Your task to perform on an android device: change notifications settings Image 0: 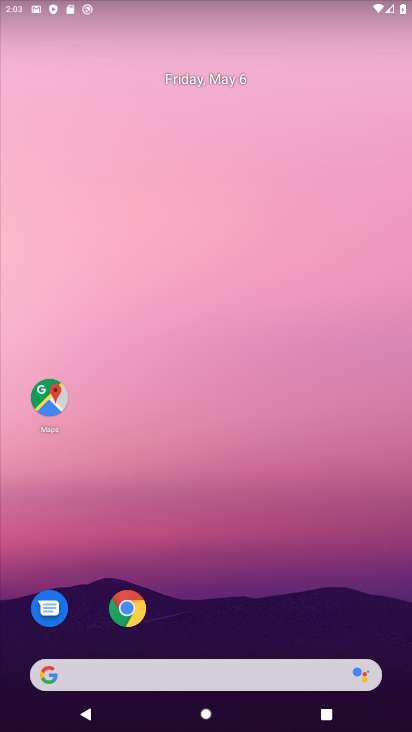
Step 0: drag from (205, 615) to (222, 32)
Your task to perform on an android device: change notifications settings Image 1: 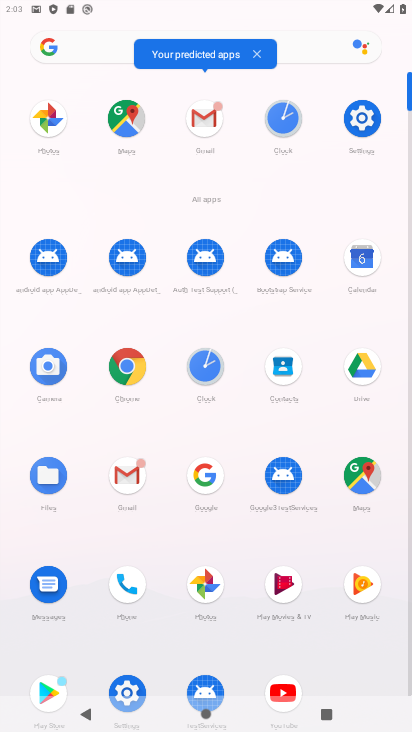
Step 1: drag from (155, 633) to (160, 405)
Your task to perform on an android device: change notifications settings Image 2: 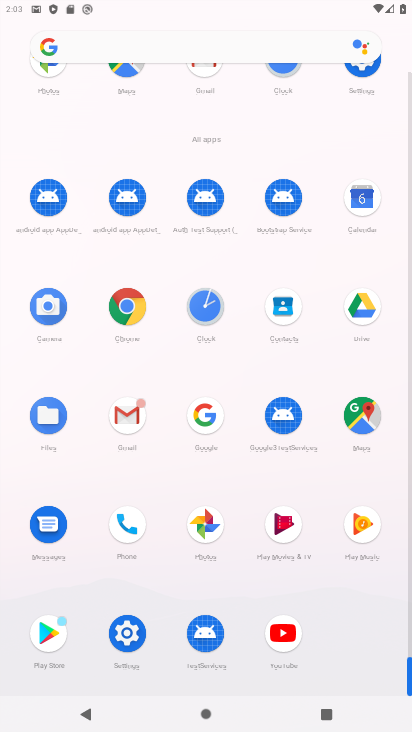
Step 2: click (134, 642)
Your task to perform on an android device: change notifications settings Image 3: 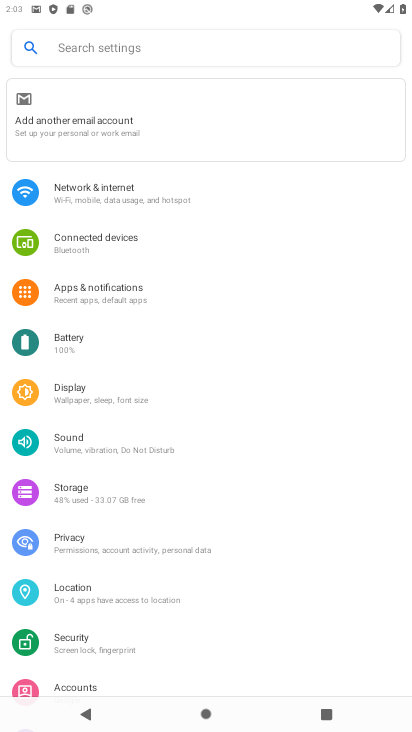
Step 3: click (130, 297)
Your task to perform on an android device: change notifications settings Image 4: 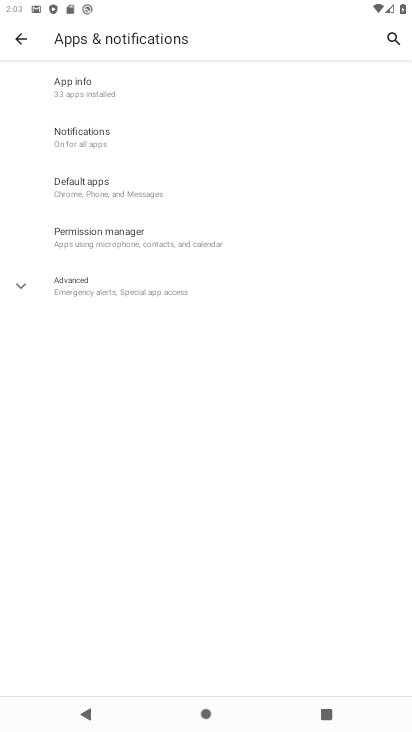
Step 4: click (92, 137)
Your task to perform on an android device: change notifications settings Image 5: 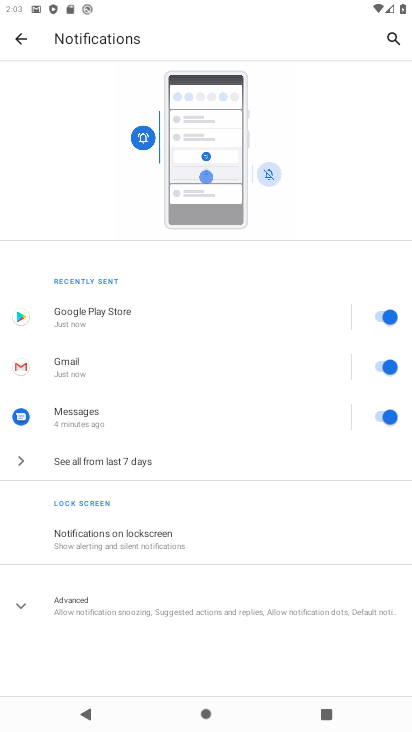
Step 5: click (386, 311)
Your task to perform on an android device: change notifications settings Image 6: 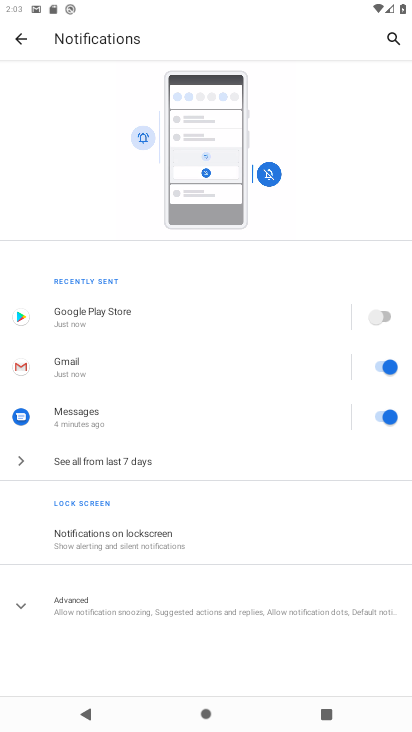
Step 6: click (381, 363)
Your task to perform on an android device: change notifications settings Image 7: 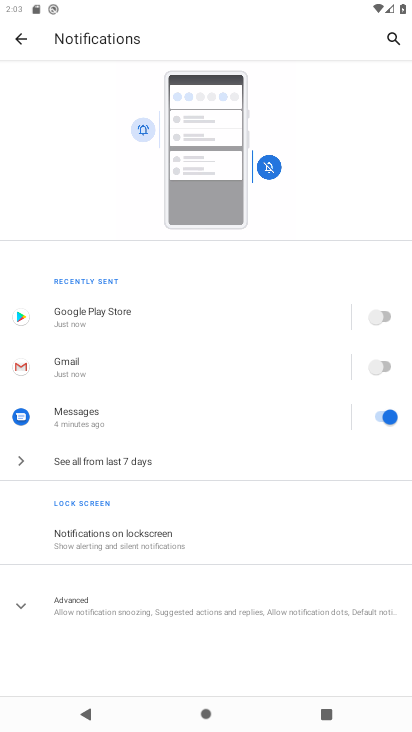
Step 7: click (376, 412)
Your task to perform on an android device: change notifications settings Image 8: 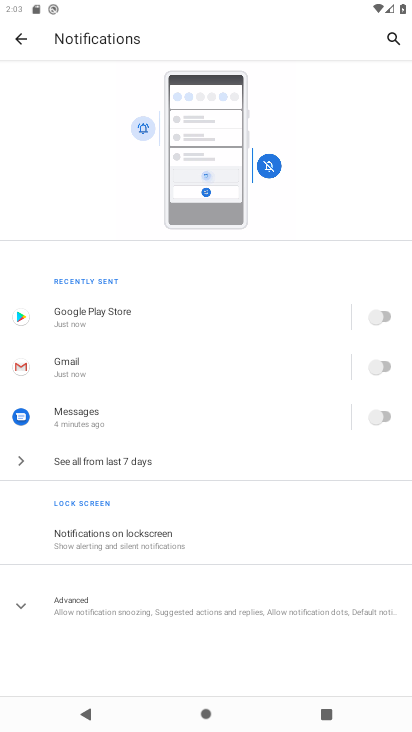
Step 8: click (151, 535)
Your task to perform on an android device: change notifications settings Image 9: 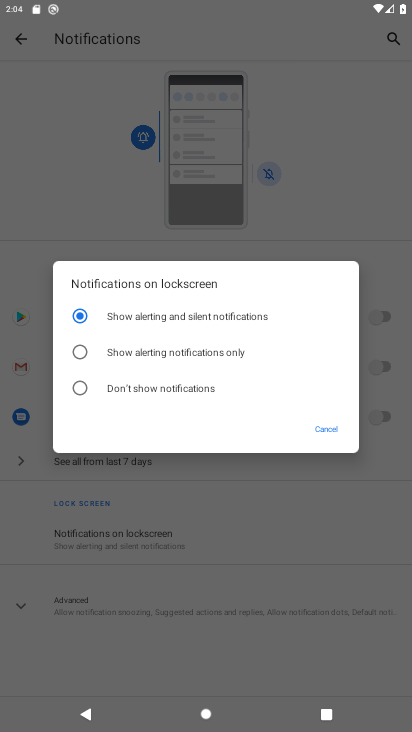
Step 9: click (103, 387)
Your task to perform on an android device: change notifications settings Image 10: 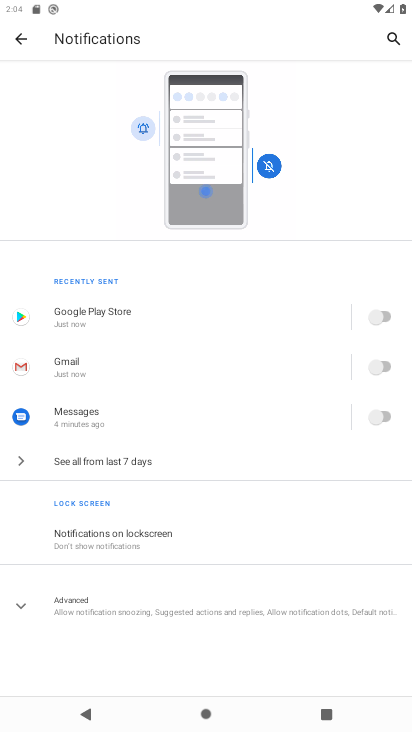
Step 10: task complete